Your task to perform on an android device: Search for seafood restaurants on Google Maps Image 0: 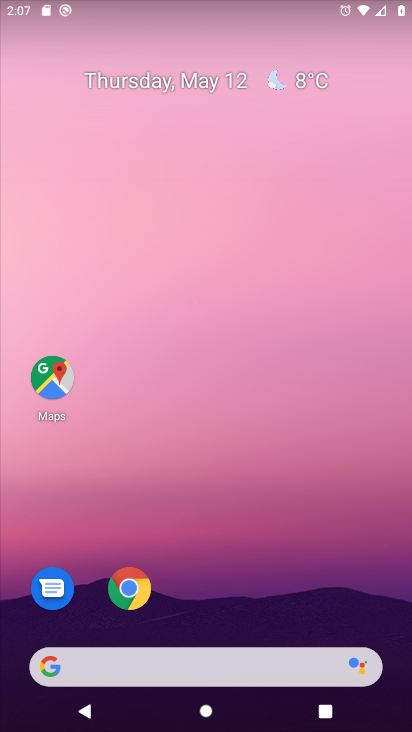
Step 0: drag from (278, 583) to (335, 77)
Your task to perform on an android device: Search for seafood restaurants on Google Maps Image 1: 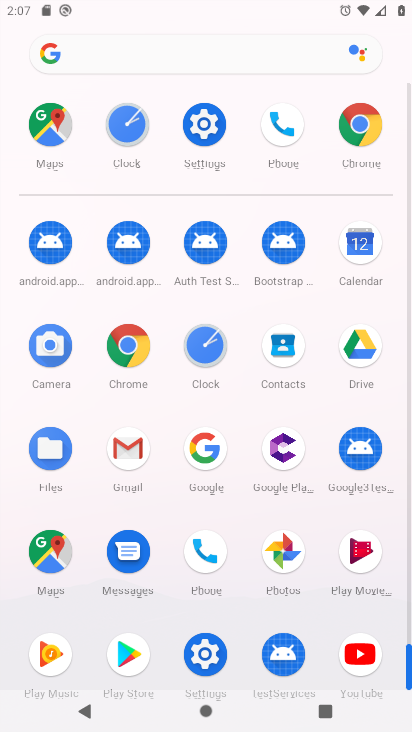
Step 1: click (28, 525)
Your task to perform on an android device: Search for seafood restaurants on Google Maps Image 2: 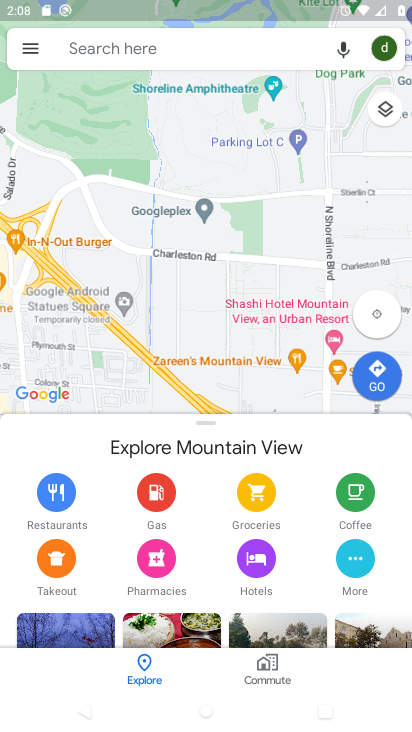
Step 2: click (128, 46)
Your task to perform on an android device: Search for seafood restaurants on Google Maps Image 3: 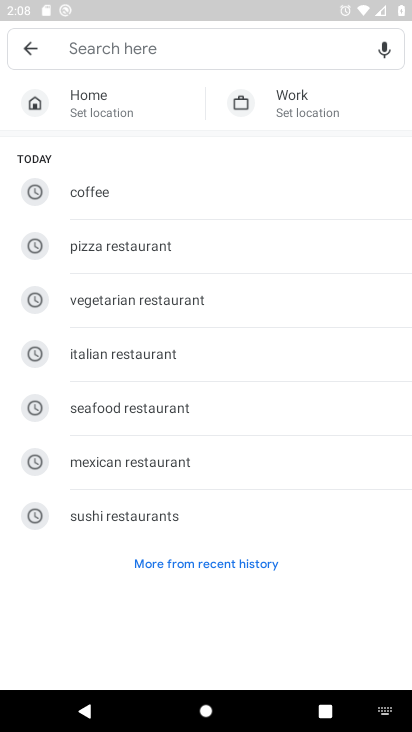
Step 3: click (192, 405)
Your task to perform on an android device: Search for seafood restaurants on Google Maps Image 4: 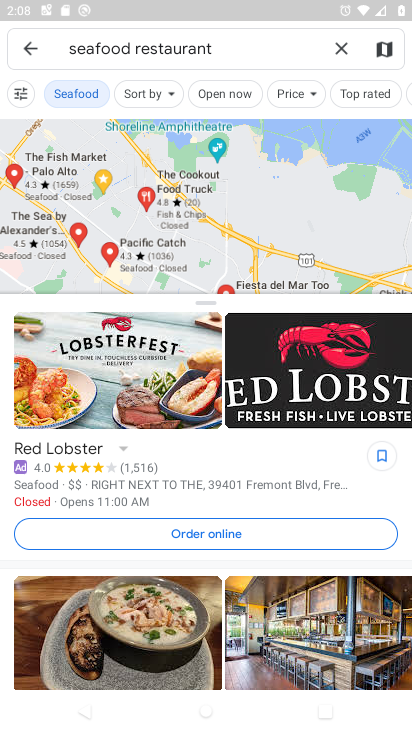
Step 4: task complete